Your task to perform on an android device: Open Reddit.com Image 0: 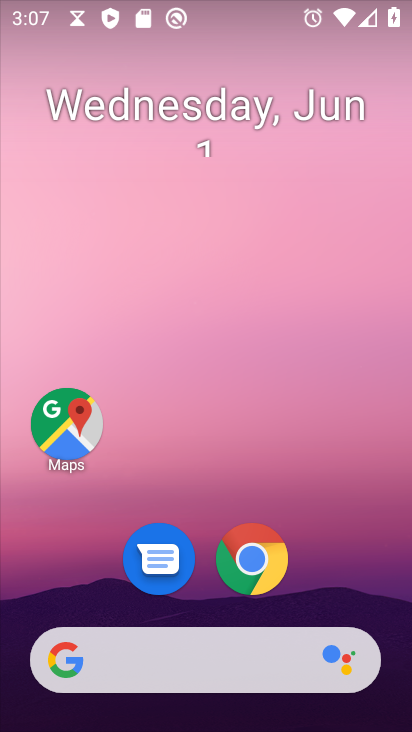
Step 0: click (238, 567)
Your task to perform on an android device: Open Reddit.com Image 1: 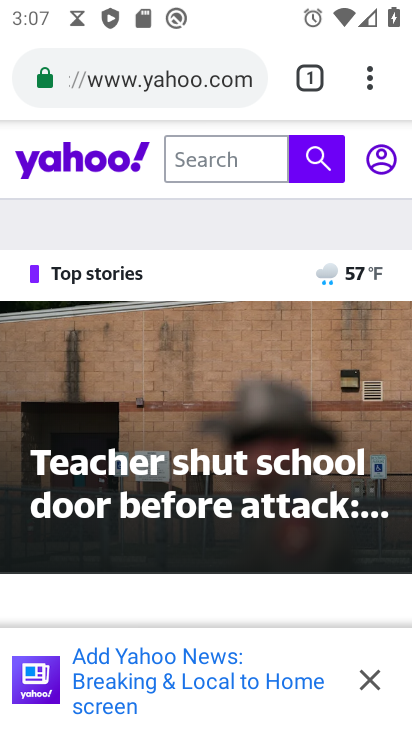
Step 1: click (184, 79)
Your task to perform on an android device: Open Reddit.com Image 2: 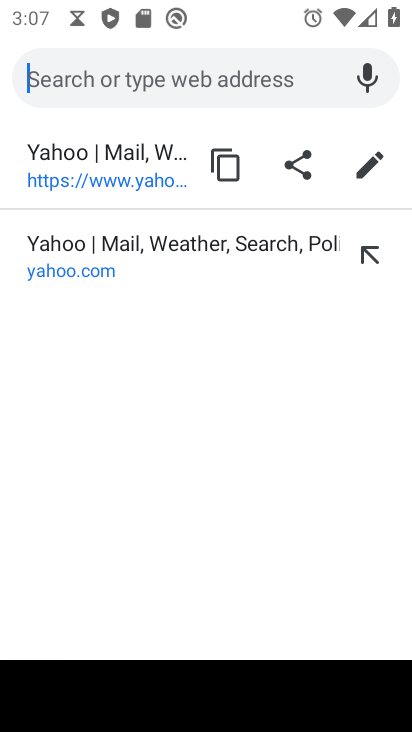
Step 2: type "Reddit.com"
Your task to perform on an android device: Open Reddit.com Image 3: 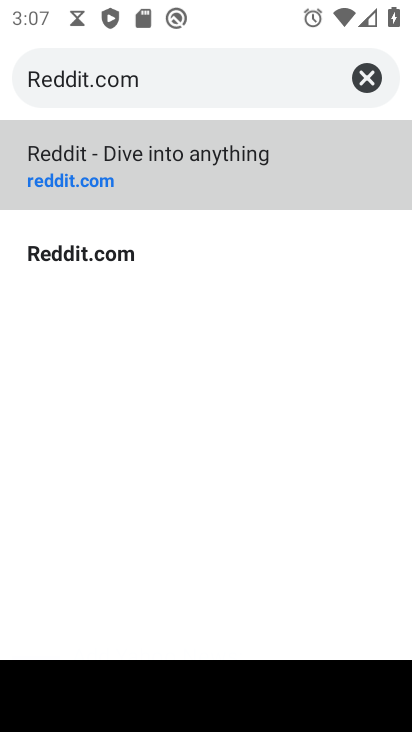
Step 3: click (61, 161)
Your task to perform on an android device: Open Reddit.com Image 4: 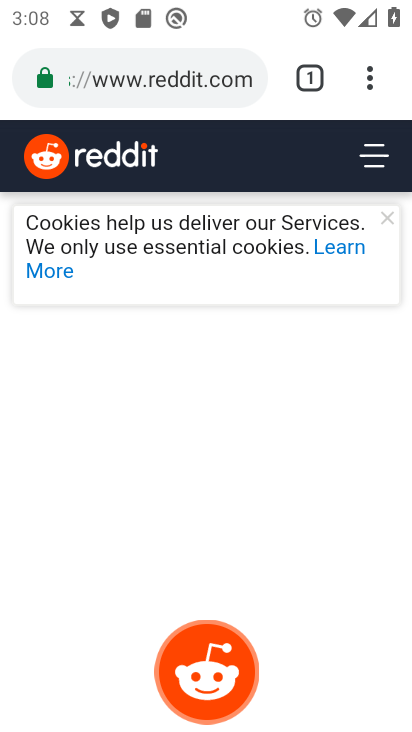
Step 4: task complete